Your task to perform on an android device: check battery use Image 0: 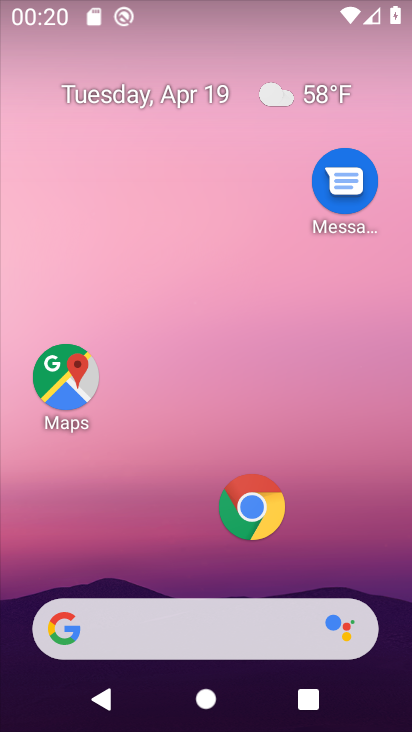
Step 0: drag from (155, 562) to (341, 0)
Your task to perform on an android device: check battery use Image 1: 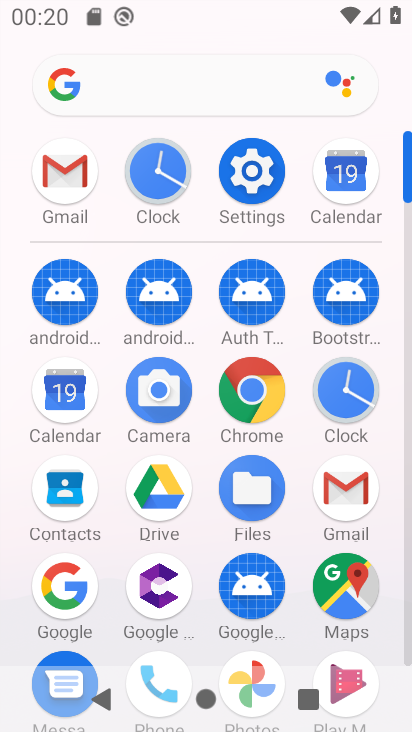
Step 1: click (256, 187)
Your task to perform on an android device: check battery use Image 2: 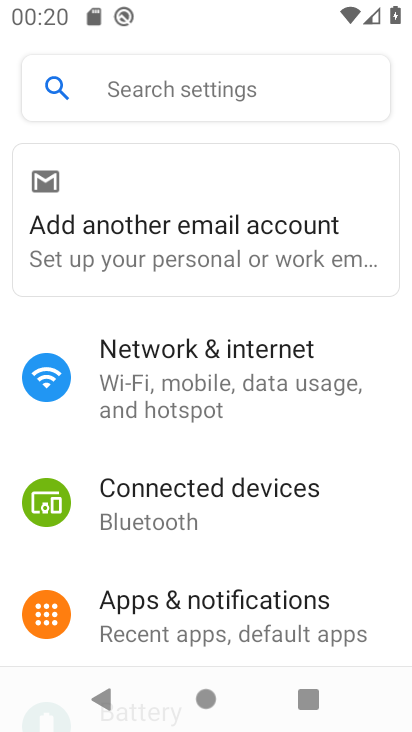
Step 2: drag from (201, 578) to (284, 177)
Your task to perform on an android device: check battery use Image 3: 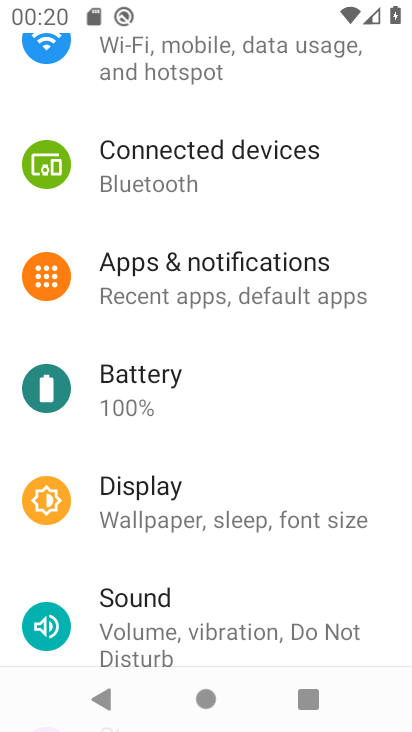
Step 3: click (157, 410)
Your task to perform on an android device: check battery use Image 4: 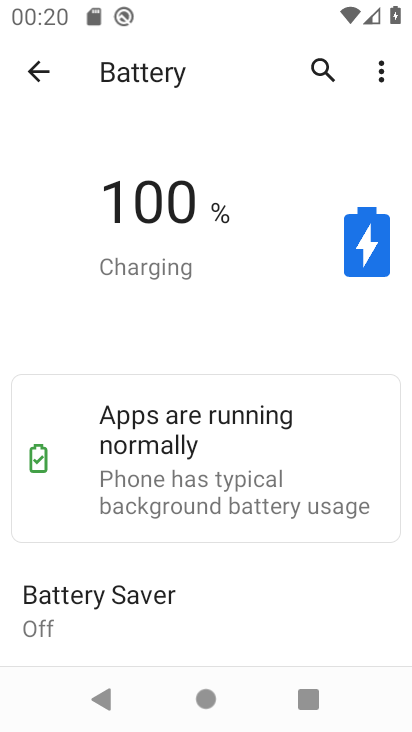
Step 4: click (380, 73)
Your task to perform on an android device: check battery use Image 5: 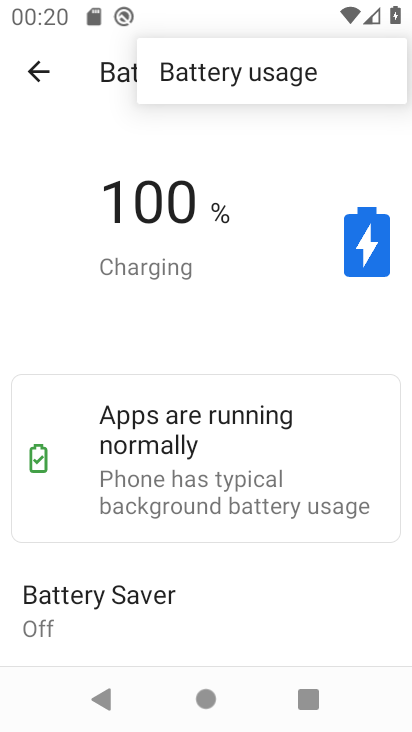
Step 5: click (230, 88)
Your task to perform on an android device: check battery use Image 6: 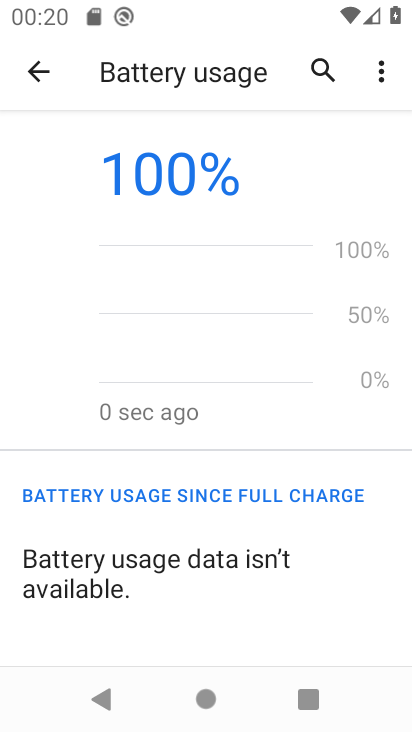
Step 6: task complete